Your task to perform on an android device: find photos in the google photos app Image 0: 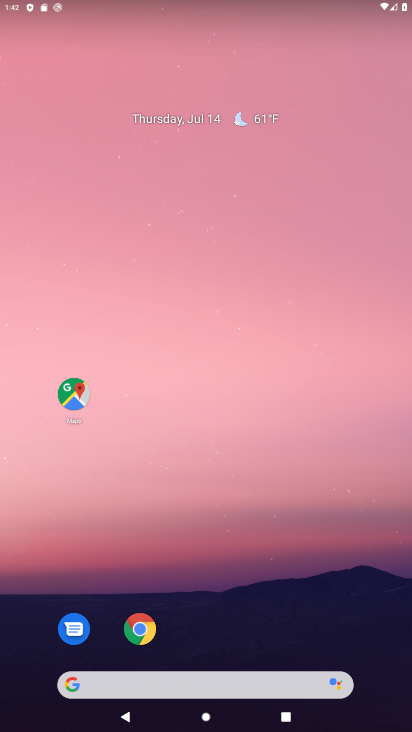
Step 0: drag from (285, 613) to (248, 12)
Your task to perform on an android device: find photos in the google photos app Image 1: 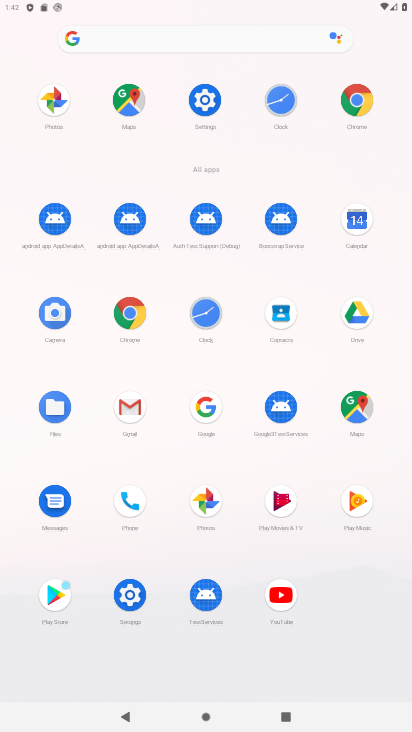
Step 1: click (50, 101)
Your task to perform on an android device: find photos in the google photos app Image 2: 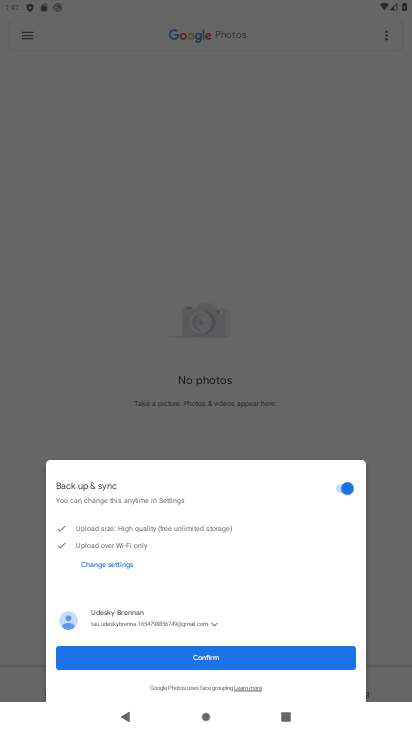
Step 2: click (206, 656)
Your task to perform on an android device: find photos in the google photos app Image 3: 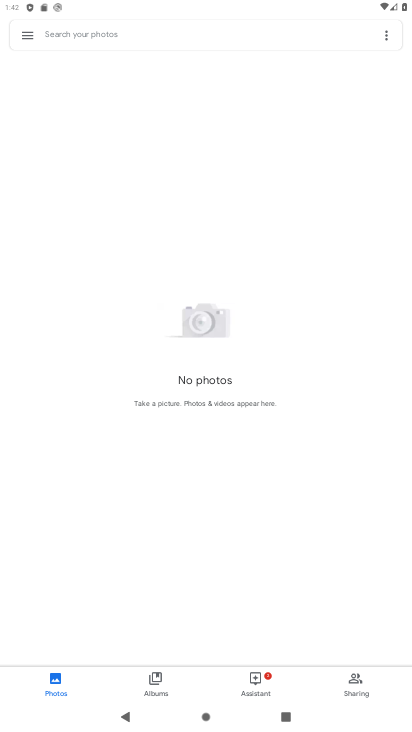
Step 3: task complete